Your task to perform on an android device: Open network settings Image 0: 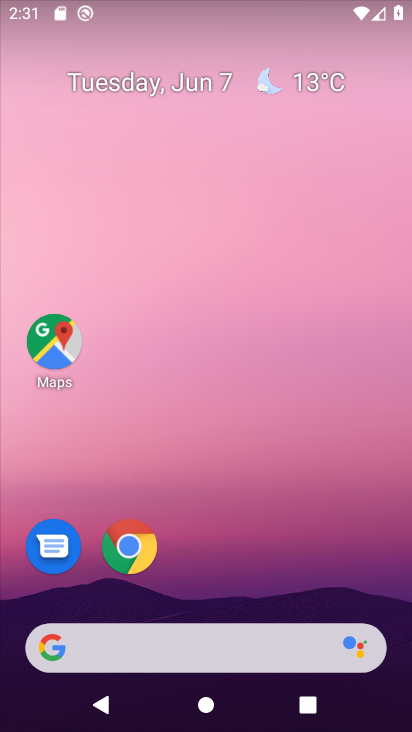
Step 0: drag from (376, 582) to (346, 161)
Your task to perform on an android device: Open network settings Image 1: 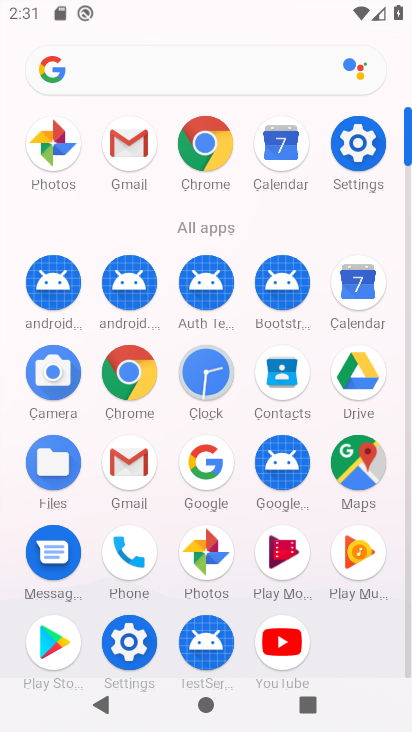
Step 1: click (371, 155)
Your task to perform on an android device: Open network settings Image 2: 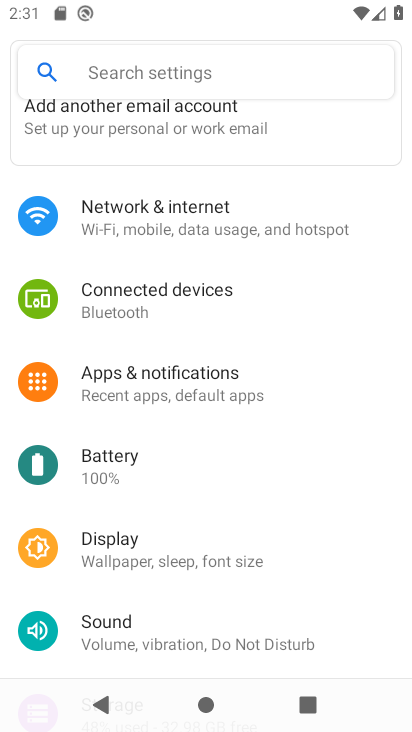
Step 2: drag from (313, 555) to (315, 397)
Your task to perform on an android device: Open network settings Image 3: 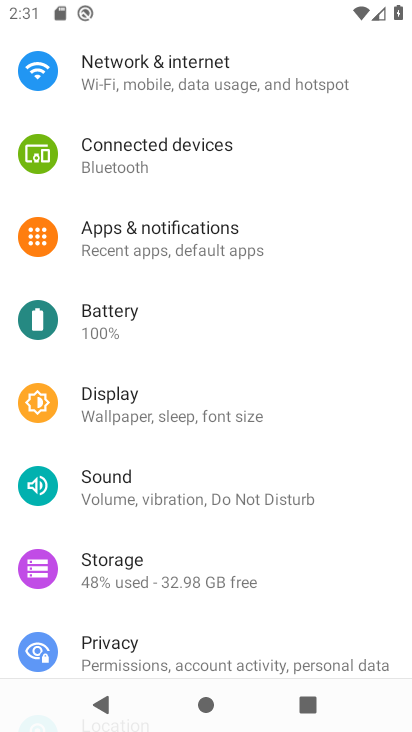
Step 3: drag from (351, 554) to (341, 395)
Your task to perform on an android device: Open network settings Image 4: 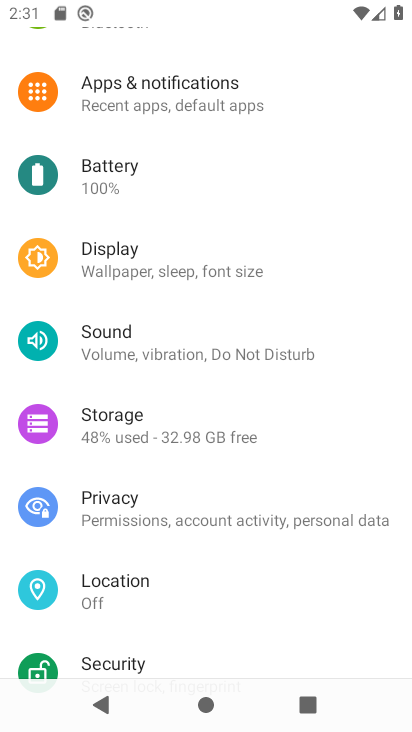
Step 4: drag from (356, 571) to (355, 388)
Your task to perform on an android device: Open network settings Image 5: 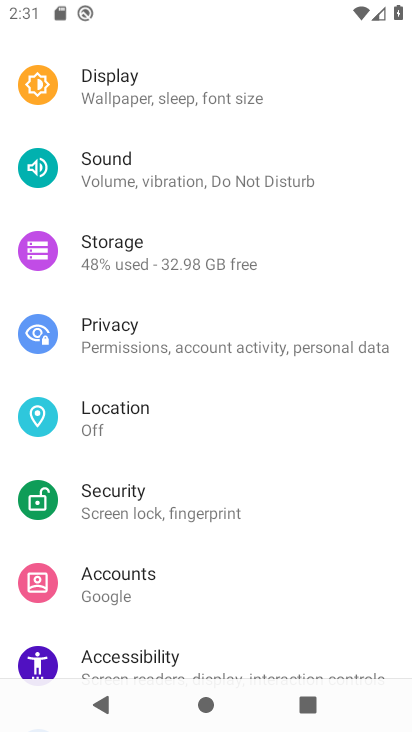
Step 5: drag from (353, 528) to (356, 344)
Your task to perform on an android device: Open network settings Image 6: 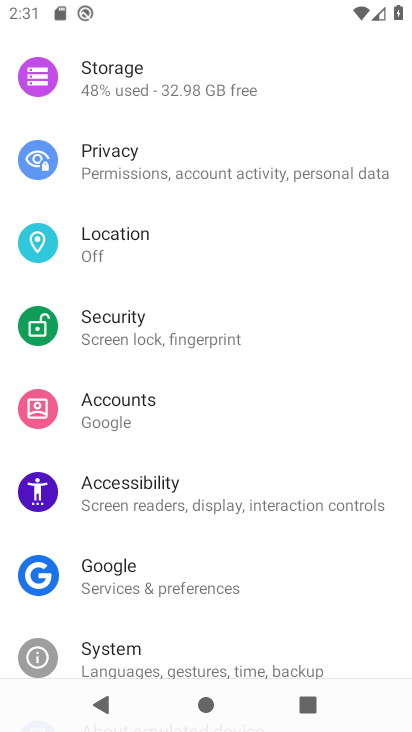
Step 6: drag from (342, 551) to (340, 341)
Your task to perform on an android device: Open network settings Image 7: 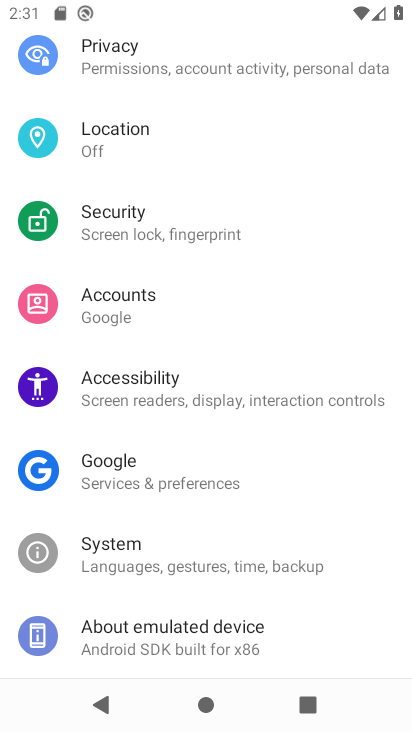
Step 7: drag from (345, 218) to (354, 370)
Your task to perform on an android device: Open network settings Image 8: 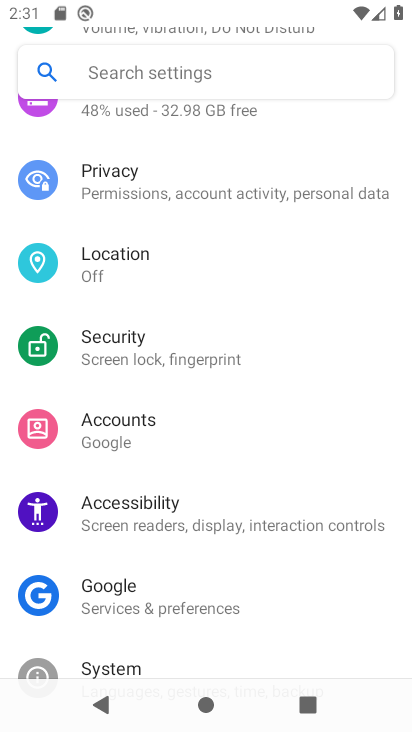
Step 8: drag from (337, 152) to (354, 428)
Your task to perform on an android device: Open network settings Image 9: 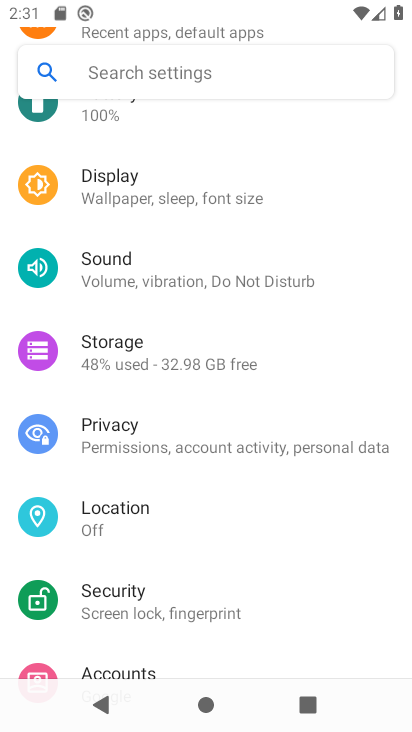
Step 9: drag from (343, 289) to (349, 462)
Your task to perform on an android device: Open network settings Image 10: 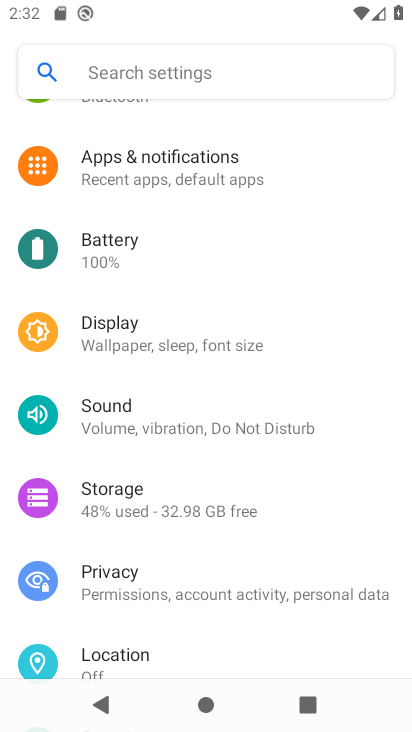
Step 10: drag from (324, 241) to (330, 446)
Your task to perform on an android device: Open network settings Image 11: 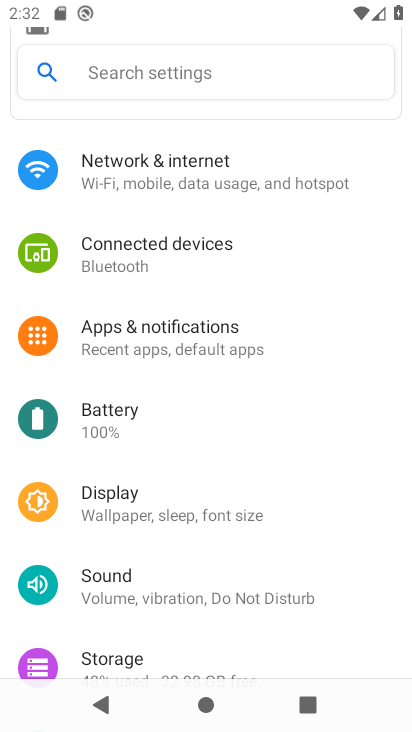
Step 11: drag from (316, 285) to (329, 427)
Your task to perform on an android device: Open network settings Image 12: 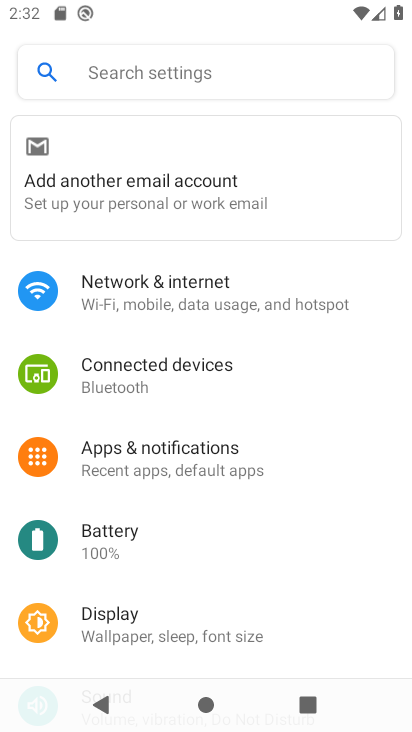
Step 12: drag from (315, 269) to (315, 443)
Your task to perform on an android device: Open network settings Image 13: 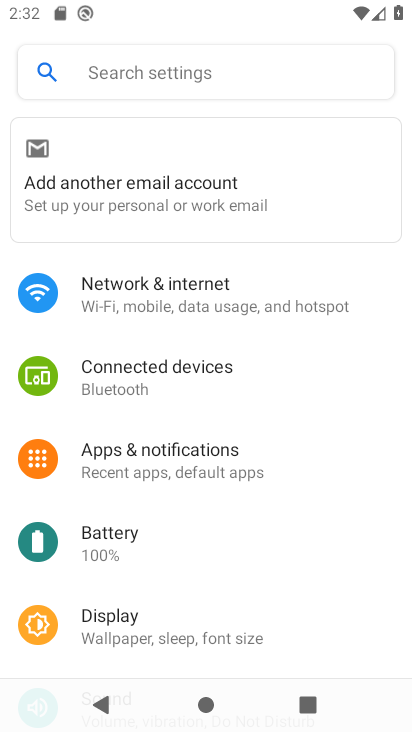
Step 13: drag from (309, 495) to (306, 369)
Your task to perform on an android device: Open network settings Image 14: 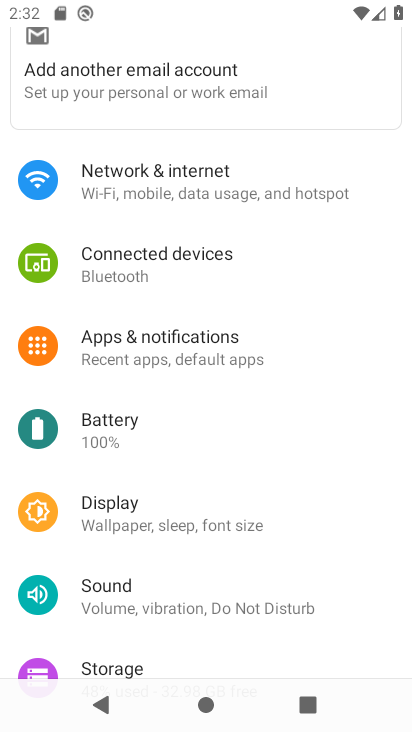
Step 14: click (172, 172)
Your task to perform on an android device: Open network settings Image 15: 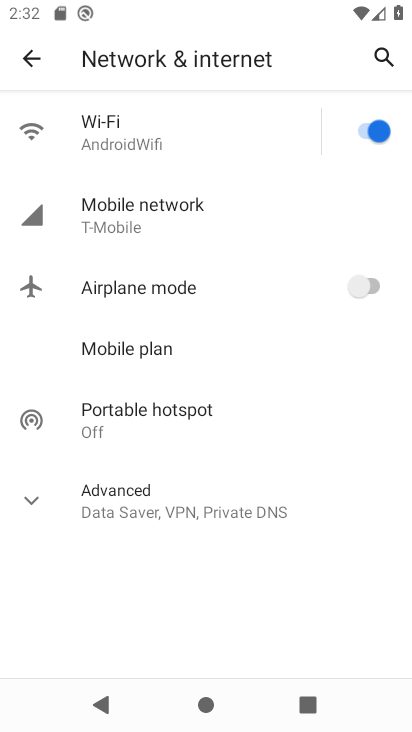
Step 15: task complete